Your task to perform on an android device: see tabs open on other devices in the chrome app Image 0: 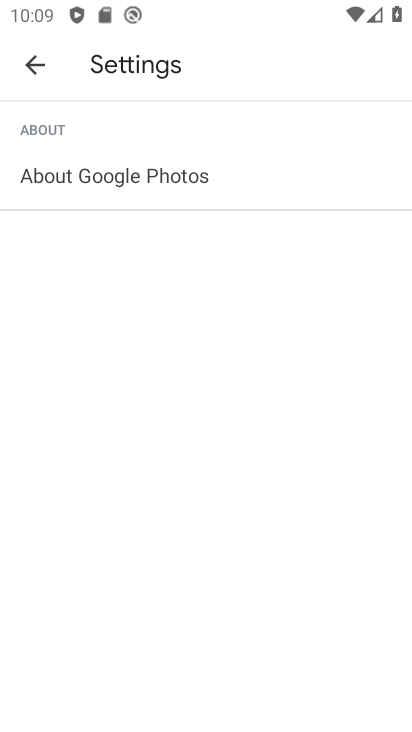
Step 0: press back button
Your task to perform on an android device: see tabs open on other devices in the chrome app Image 1: 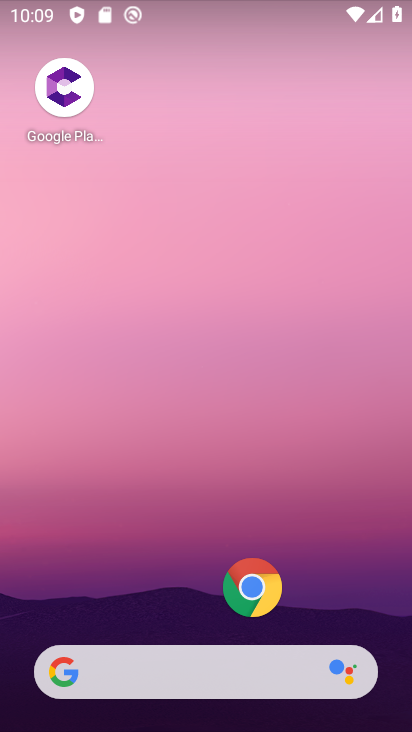
Step 1: click (241, 583)
Your task to perform on an android device: see tabs open on other devices in the chrome app Image 2: 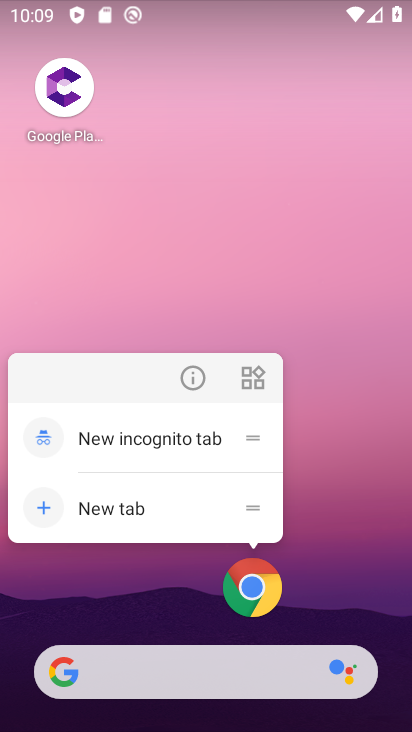
Step 2: click (187, 384)
Your task to perform on an android device: see tabs open on other devices in the chrome app Image 3: 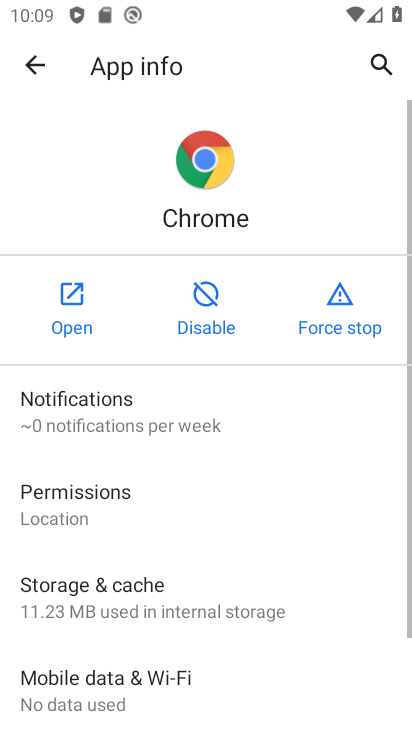
Step 3: click (57, 314)
Your task to perform on an android device: see tabs open on other devices in the chrome app Image 4: 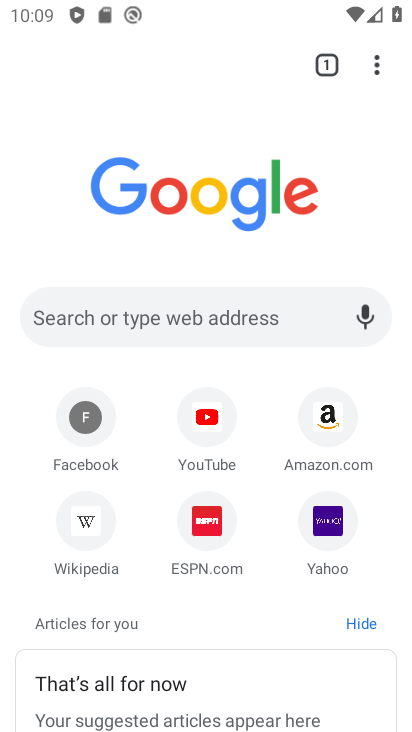
Step 4: click (372, 62)
Your task to perform on an android device: see tabs open on other devices in the chrome app Image 5: 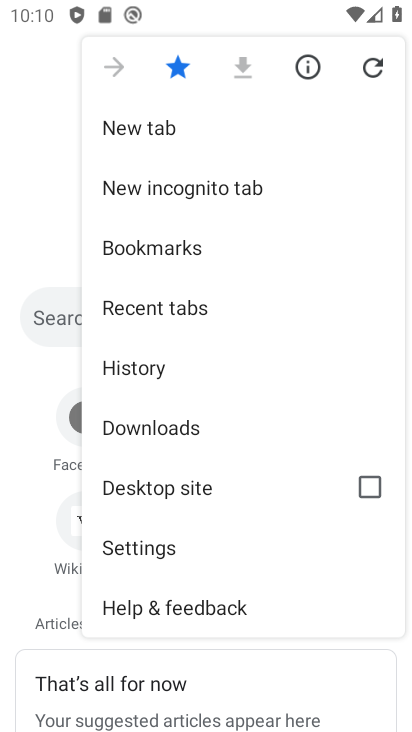
Step 5: click (202, 298)
Your task to perform on an android device: see tabs open on other devices in the chrome app Image 6: 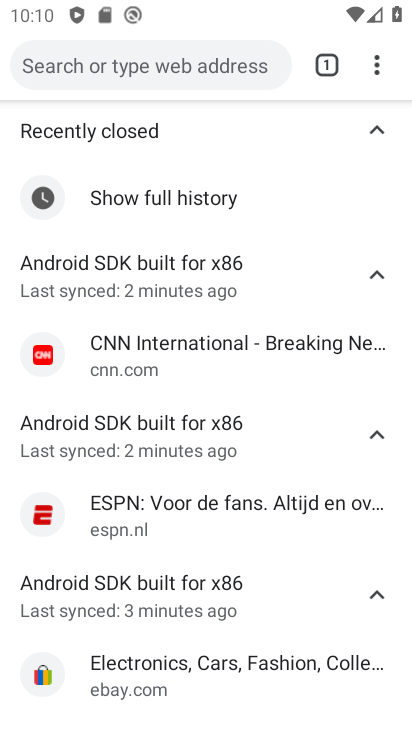
Step 6: task complete